Your task to perform on an android device: Open network settings Image 0: 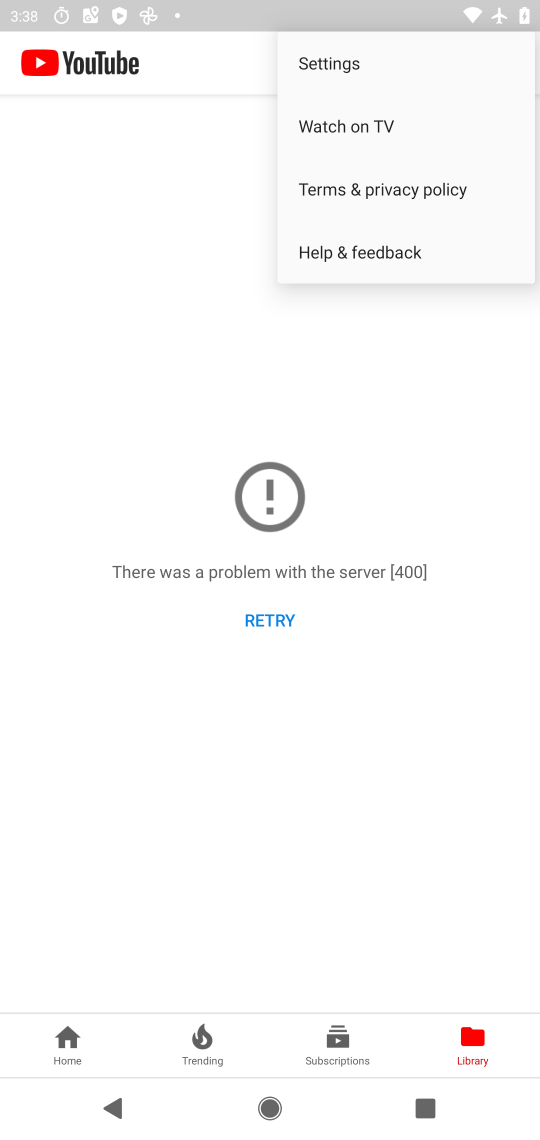
Step 0: press home button
Your task to perform on an android device: Open network settings Image 1: 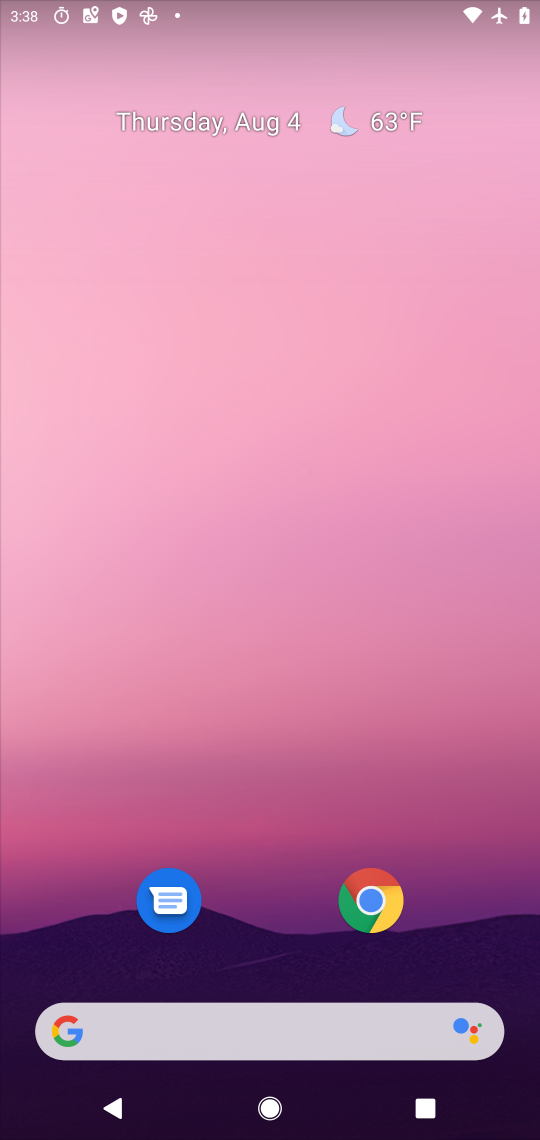
Step 1: drag from (476, 958) to (178, 129)
Your task to perform on an android device: Open network settings Image 2: 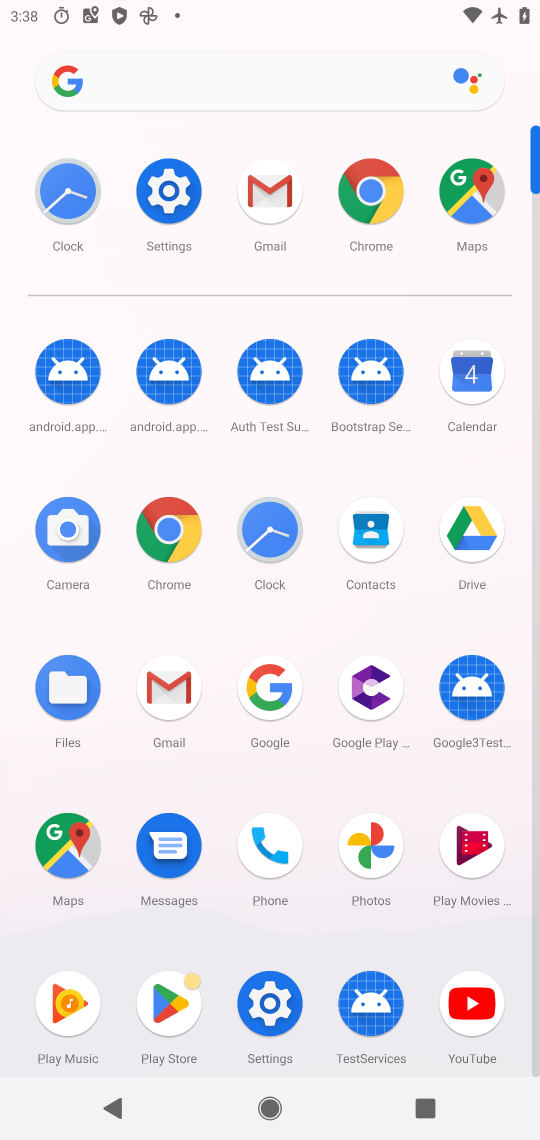
Step 2: click (160, 197)
Your task to perform on an android device: Open network settings Image 3: 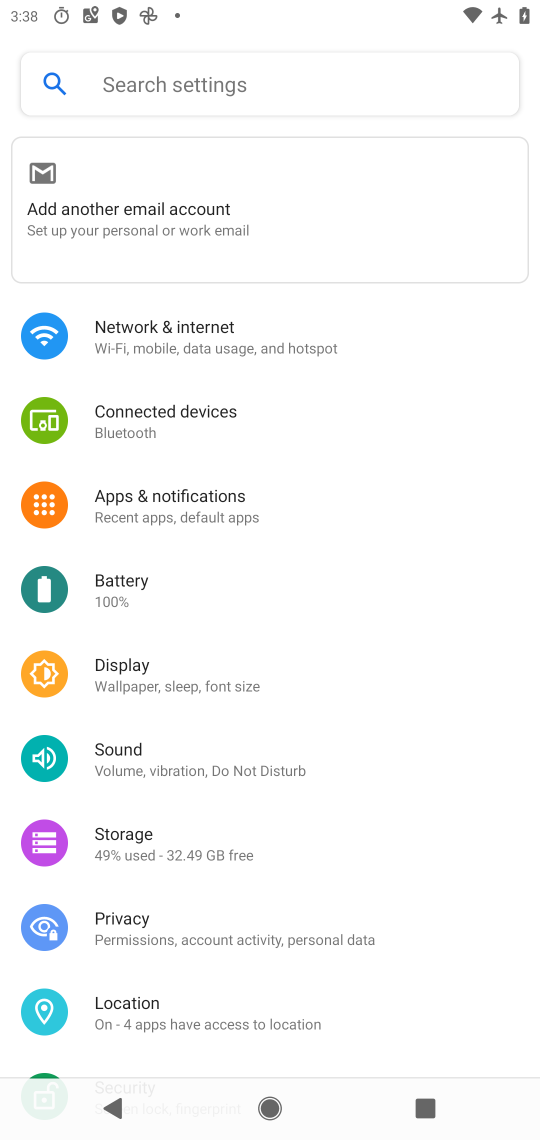
Step 3: click (261, 326)
Your task to perform on an android device: Open network settings Image 4: 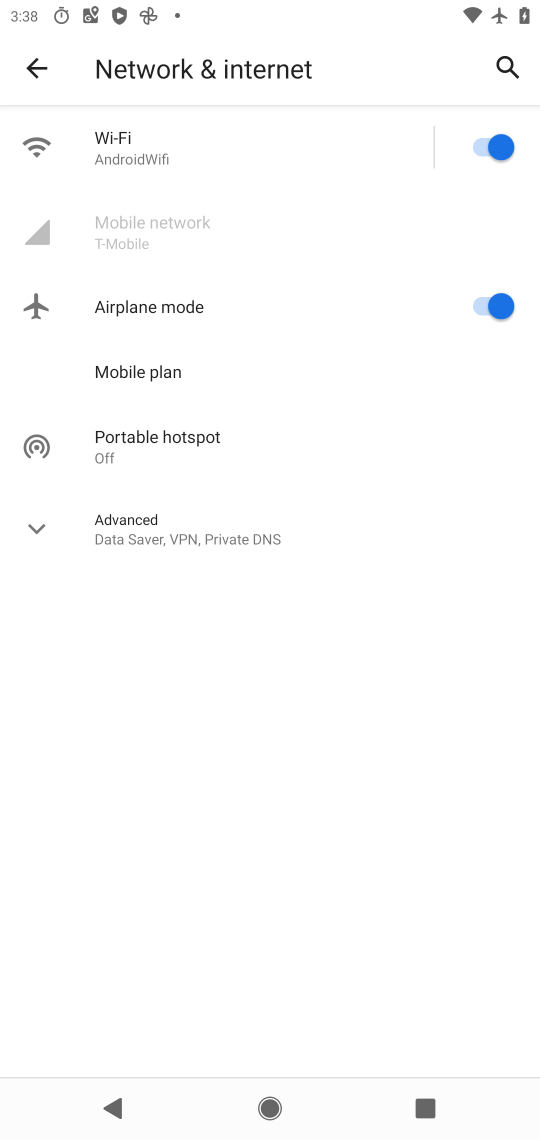
Step 4: task complete